Your task to perform on an android device: turn on sleep mode Image 0: 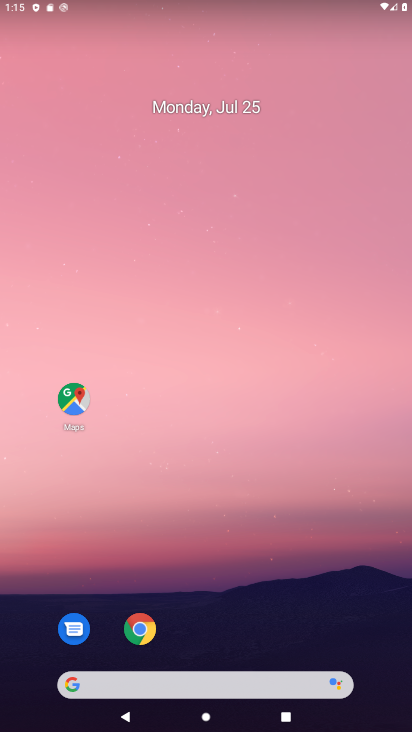
Step 0: drag from (189, 637) to (280, 115)
Your task to perform on an android device: turn on sleep mode Image 1: 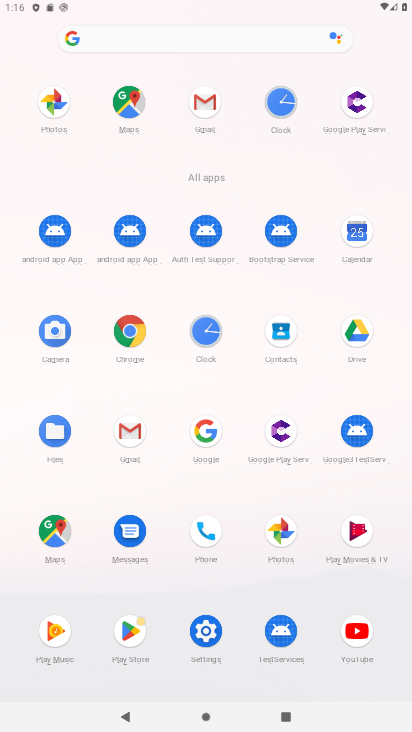
Step 1: click (207, 631)
Your task to perform on an android device: turn on sleep mode Image 2: 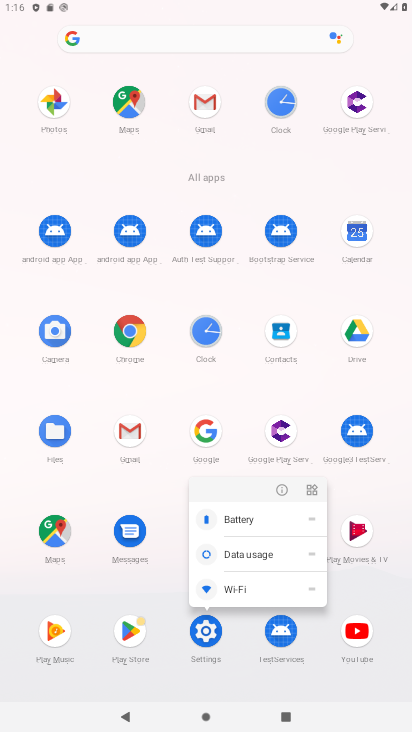
Step 2: click (278, 485)
Your task to perform on an android device: turn on sleep mode Image 3: 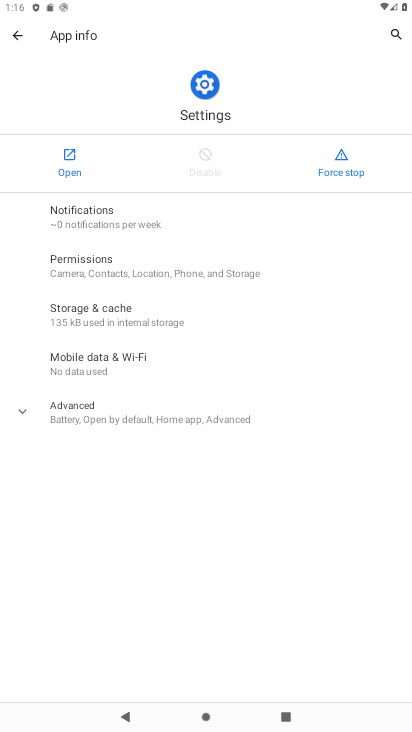
Step 3: click (67, 160)
Your task to perform on an android device: turn on sleep mode Image 4: 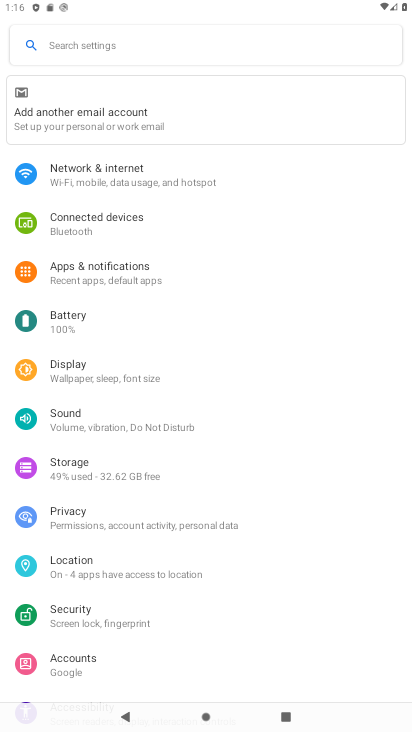
Step 4: click (79, 373)
Your task to perform on an android device: turn on sleep mode Image 5: 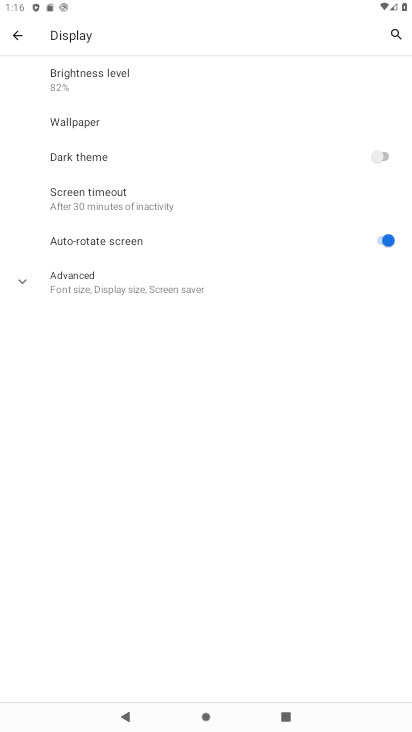
Step 5: click (127, 201)
Your task to perform on an android device: turn on sleep mode Image 6: 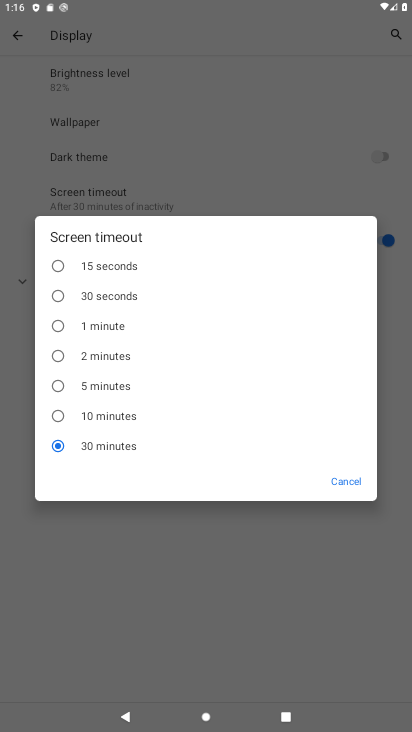
Step 6: click (62, 263)
Your task to perform on an android device: turn on sleep mode Image 7: 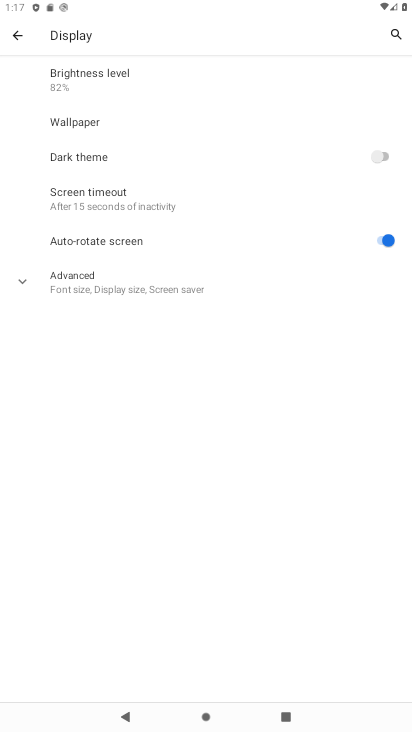
Step 7: drag from (190, 541) to (237, 277)
Your task to perform on an android device: turn on sleep mode Image 8: 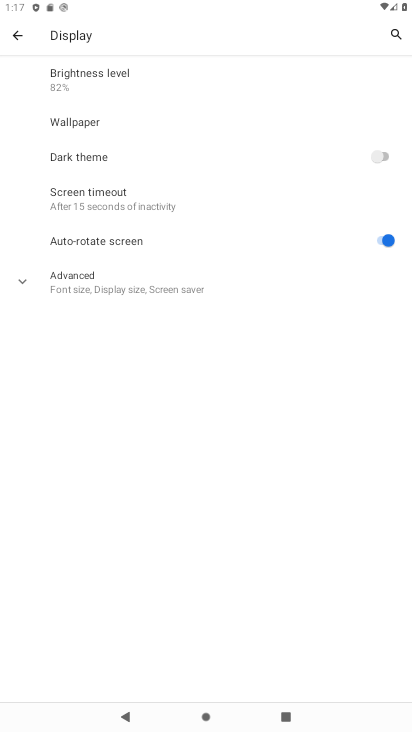
Step 8: click (183, 345)
Your task to perform on an android device: turn on sleep mode Image 9: 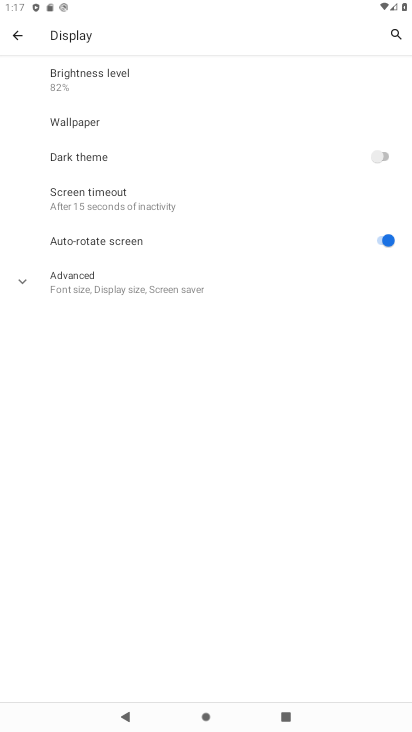
Step 9: click (146, 200)
Your task to perform on an android device: turn on sleep mode Image 10: 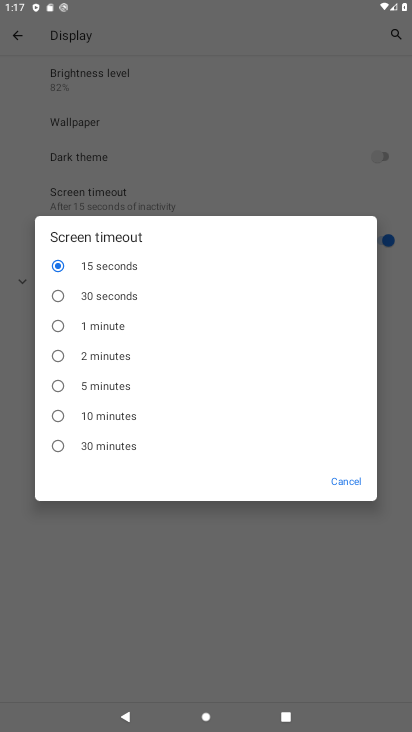
Step 10: task complete